Your task to perform on an android device: Search for a new perfume Image 0: 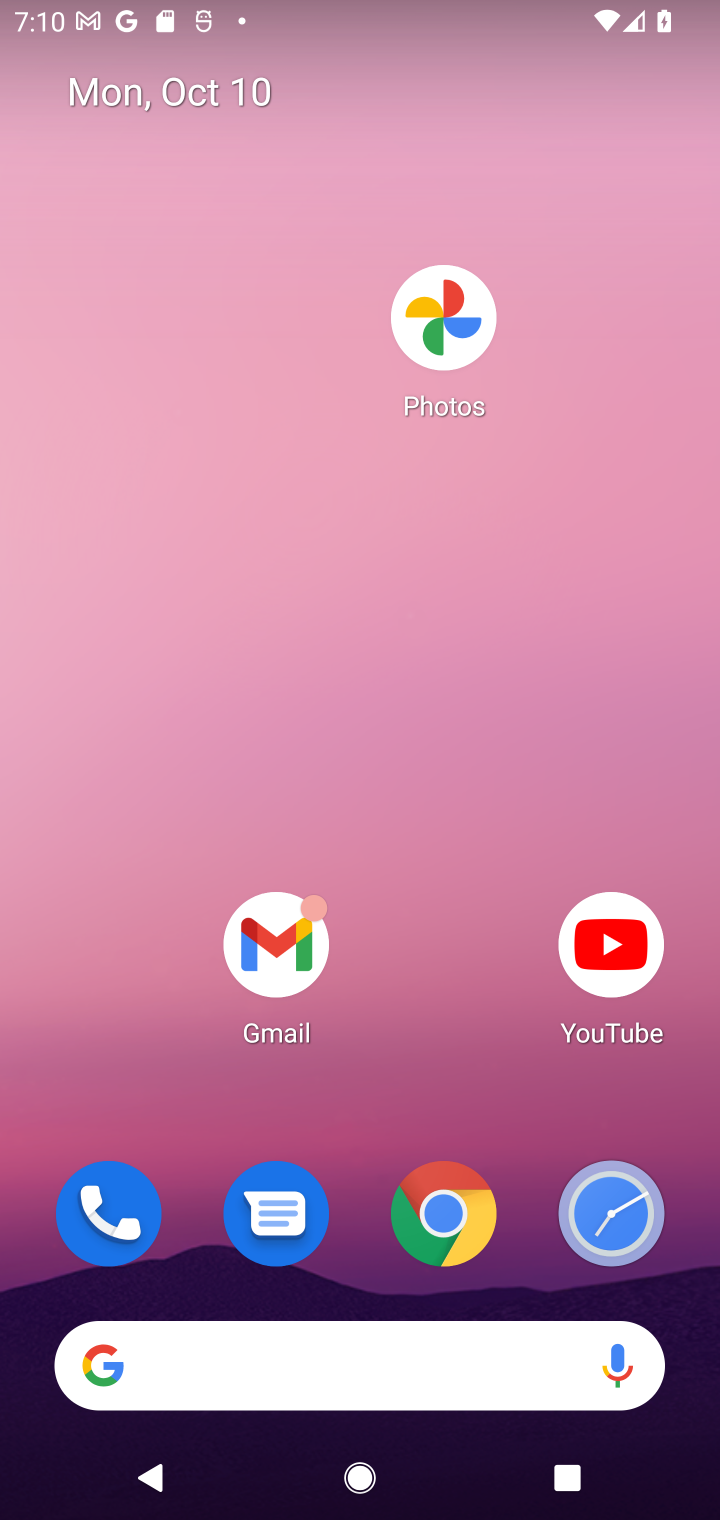
Step 0: click (329, 1346)
Your task to perform on an android device: Search for a new perfume Image 1: 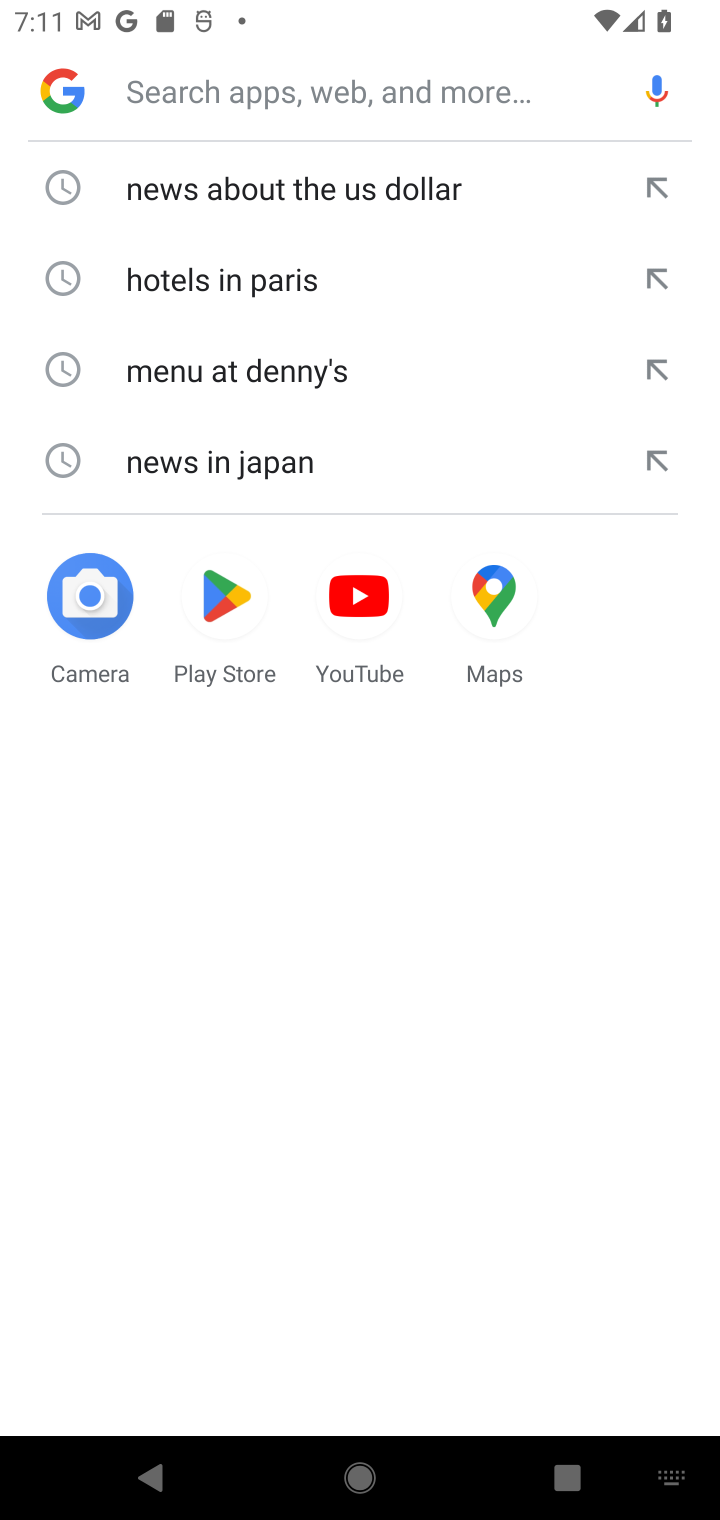
Step 1: type "new perfume"
Your task to perform on an android device: Search for a new perfume Image 2: 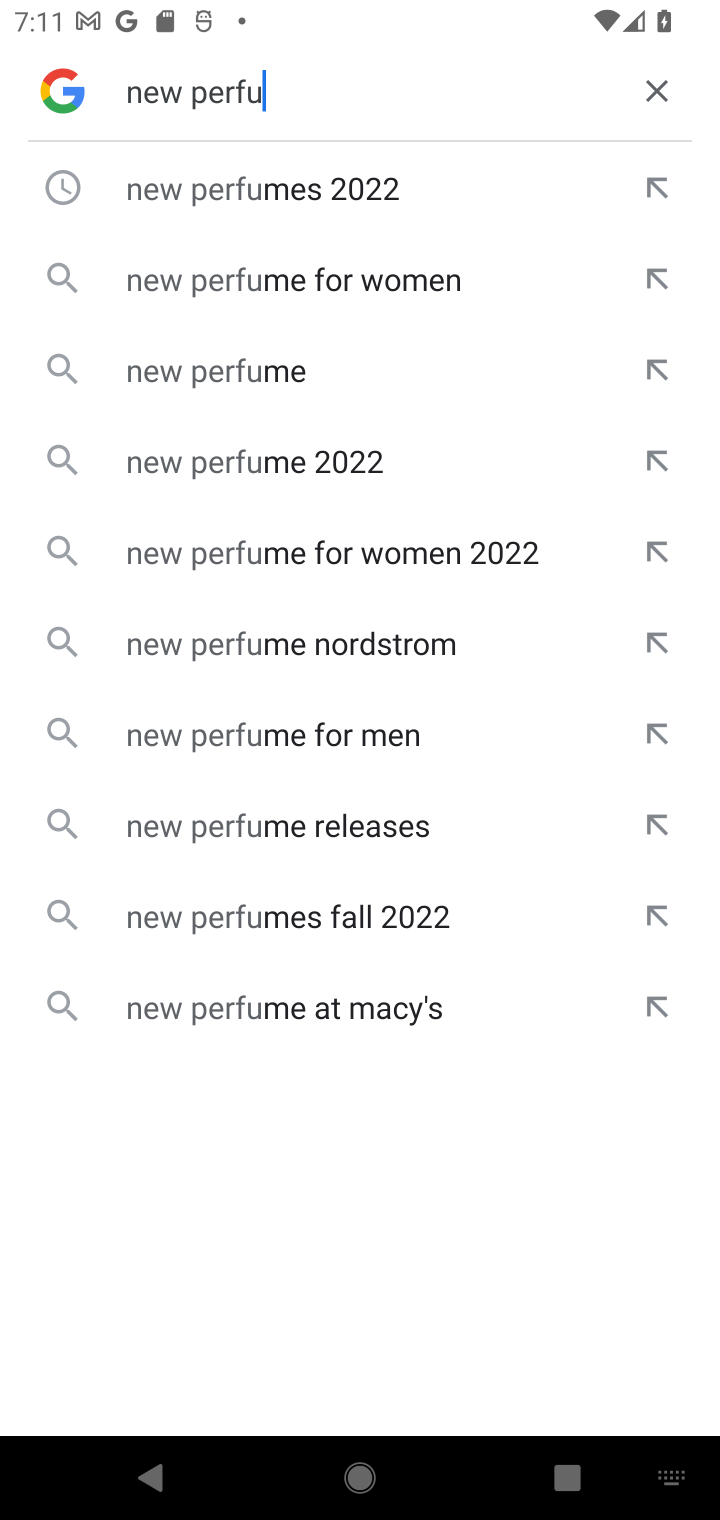
Step 2: type ""
Your task to perform on an android device: Search for a new perfume Image 3: 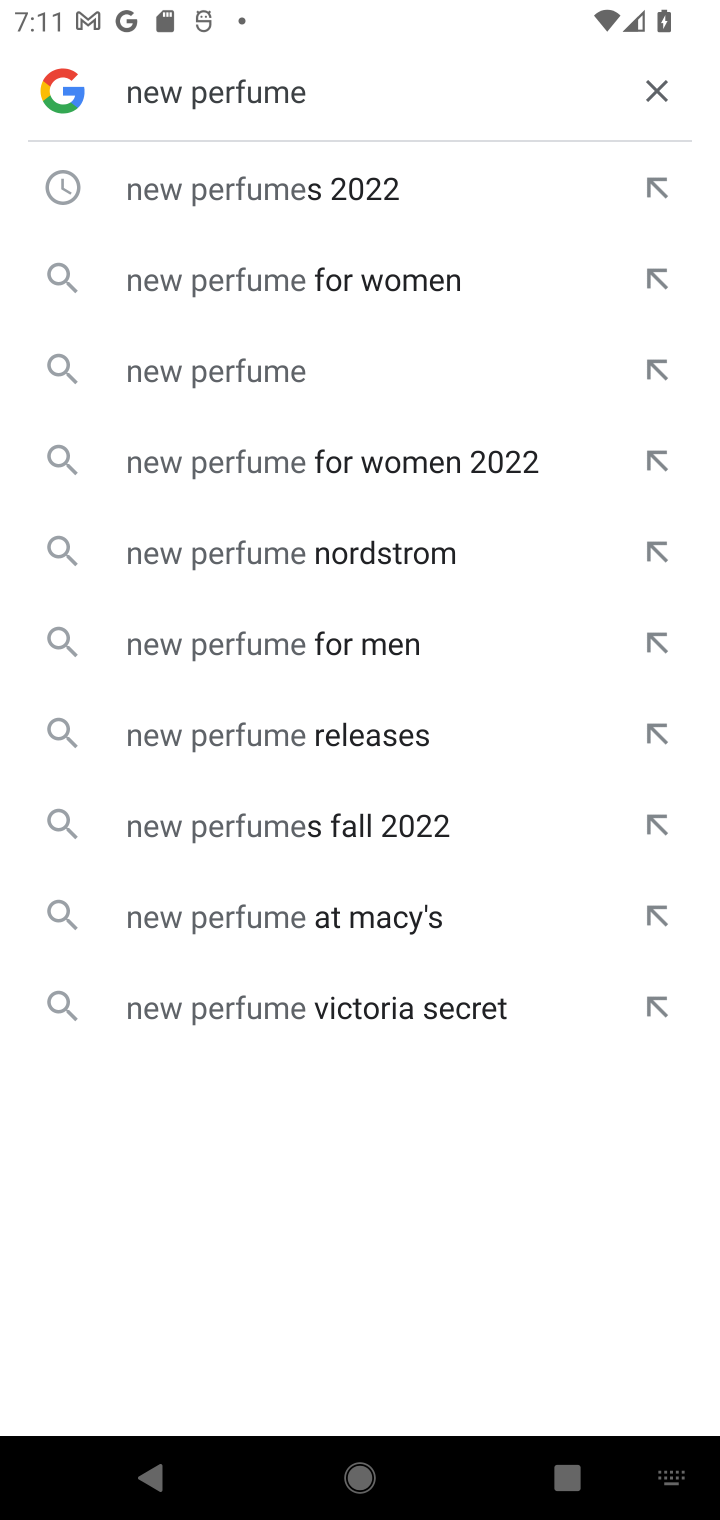
Step 3: click (253, 190)
Your task to perform on an android device: Search for a new perfume Image 4: 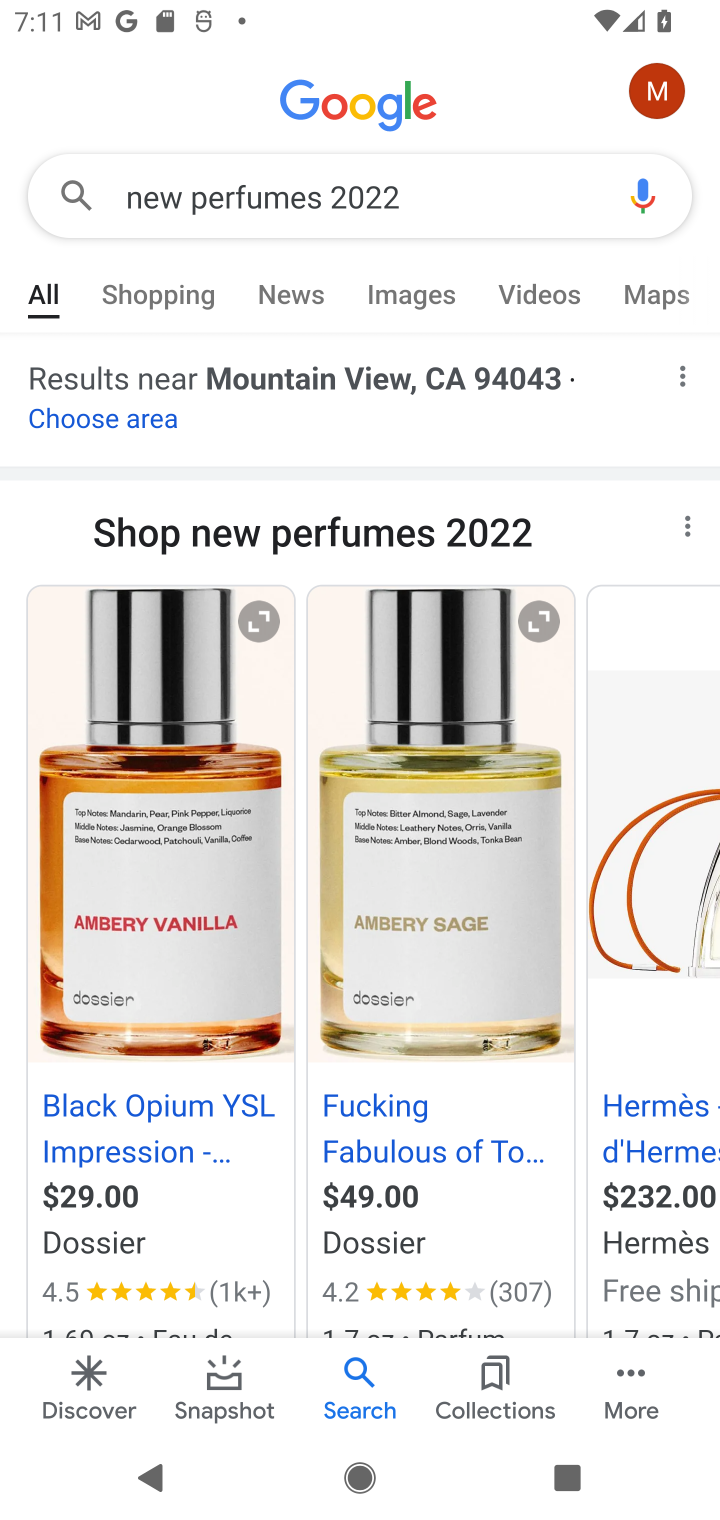
Step 4: task complete